Your task to perform on an android device: Go to network settings Image 0: 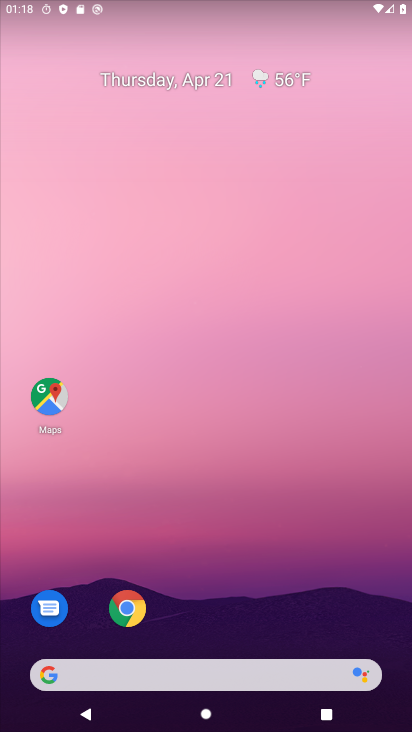
Step 0: drag from (246, 575) to (182, 232)
Your task to perform on an android device: Go to network settings Image 1: 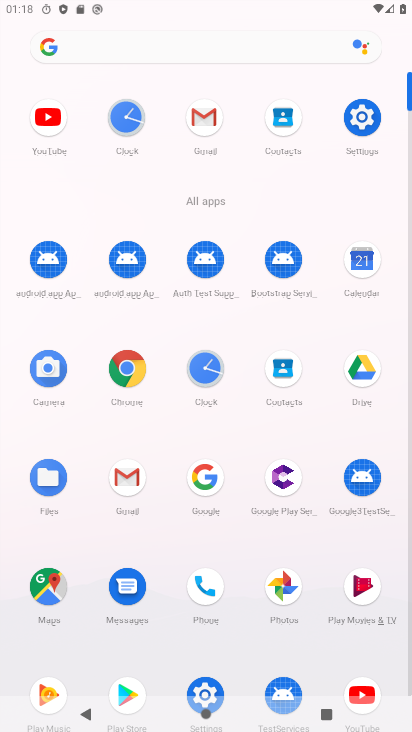
Step 1: click (364, 113)
Your task to perform on an android device: Go to network settings Image 2: 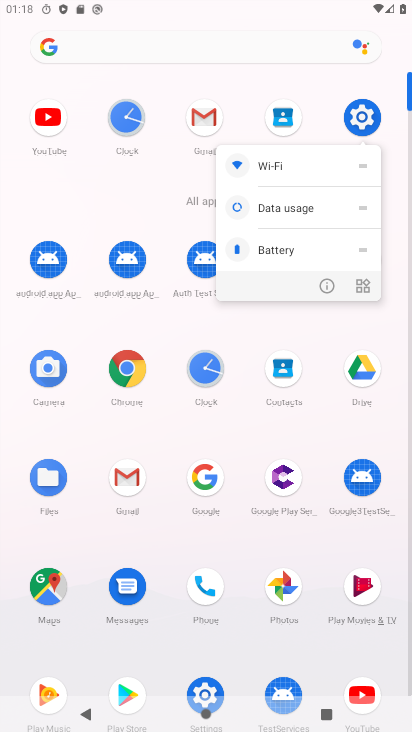
Step 2: click (355, 107)
Your task to perform on an android device: Go to network settings Image 3: 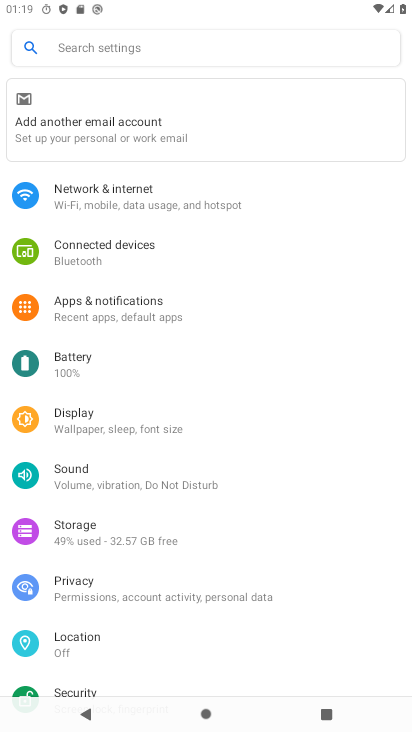
Step 3: click (141, 184)
Your task to perform on an android device: Go to network settings Image 4: 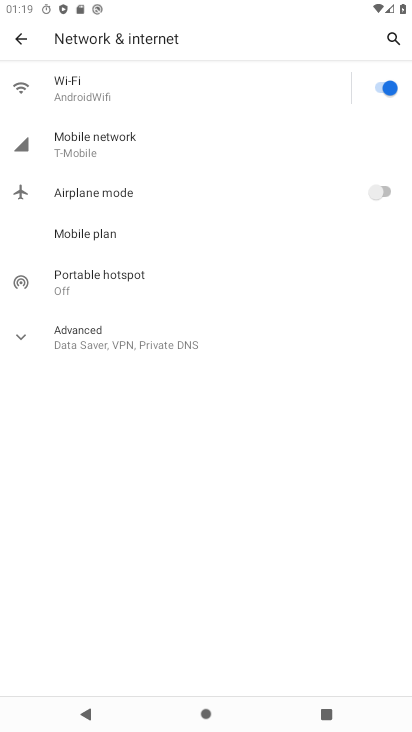
Step 4: task complete